Your task to perform on an android device: find snoozed emails in the gmail app Image 0: 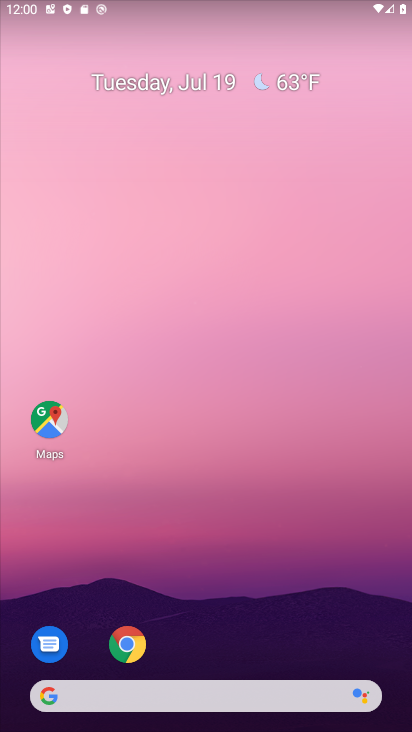
Step 0: drag from (235, 727) to (241, 115)
Your task to perform on an android device: find snoozed emails in the gmail app Image 1: 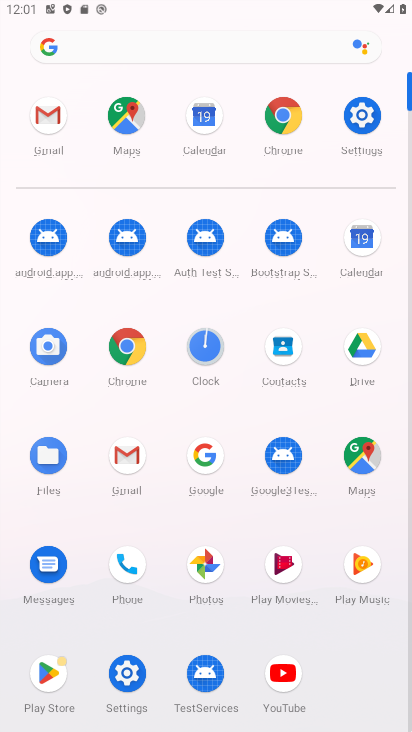
Step 1: click (127, 461)
Your task to perform on an android device: find snoozed emails in the gmail app Image 2: 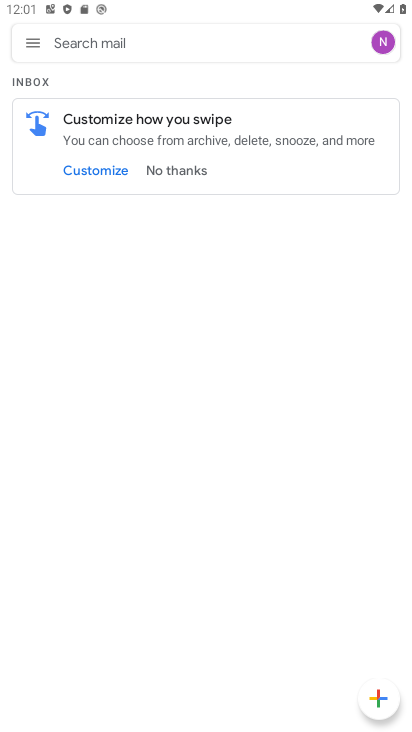
Step 2: click (32, 46)
Your task to perform on an android device: find snoozed emails in the gmail app Image 3: 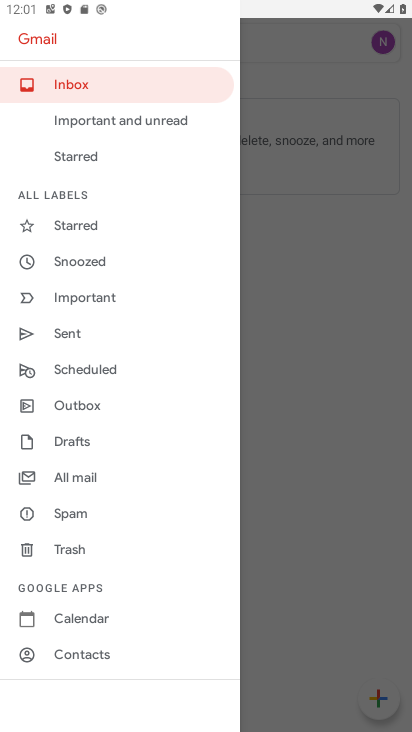
Step 3: click (71, 263)
Your task to perform on an android device: find snoozed emails in the gmail app Image 4: 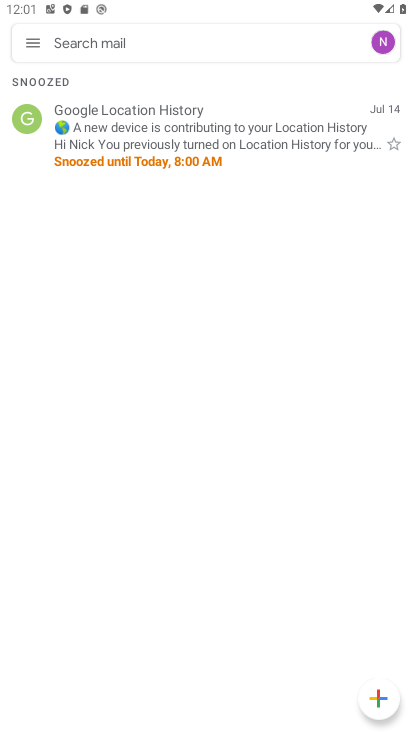
Step 4: task complete